Your task to perform on an android device: Search for "macbook pro 15 inch" on newegg.com, select the first entry, and add it to the cart. Image 0: 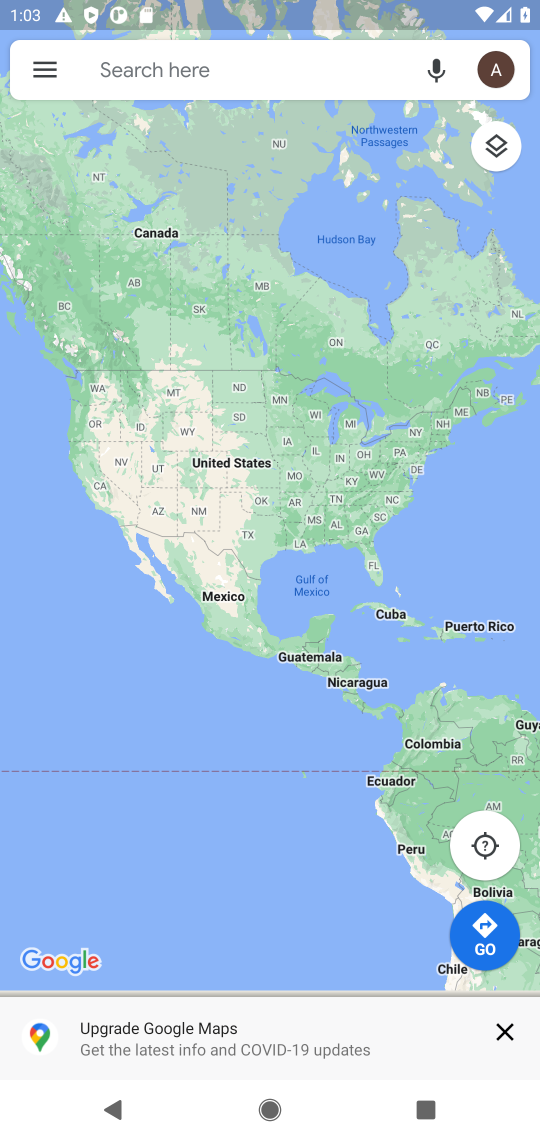
Step 0: press home button
Your task to perform on an android device: Search for "macbook pro 15 inch" on newegg.com, select the first entry, and add it to the cart. Image 1: 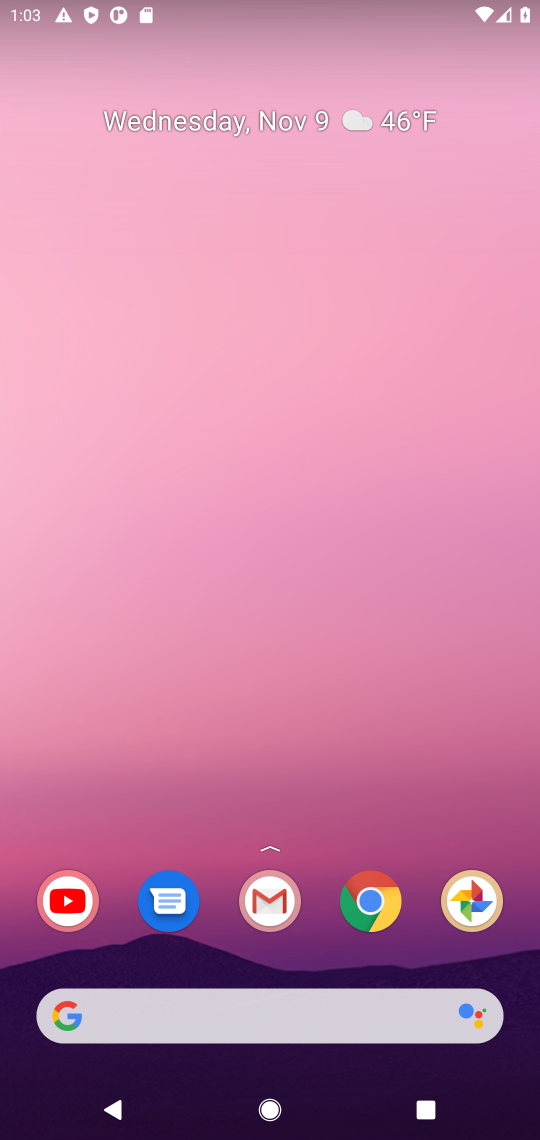
Step 1: click (376, 903)
Your task to perform on an android device: Search for "macbook pro 15 inch" on newegg.com, select the first entry, and add it to the cart. Image 2: 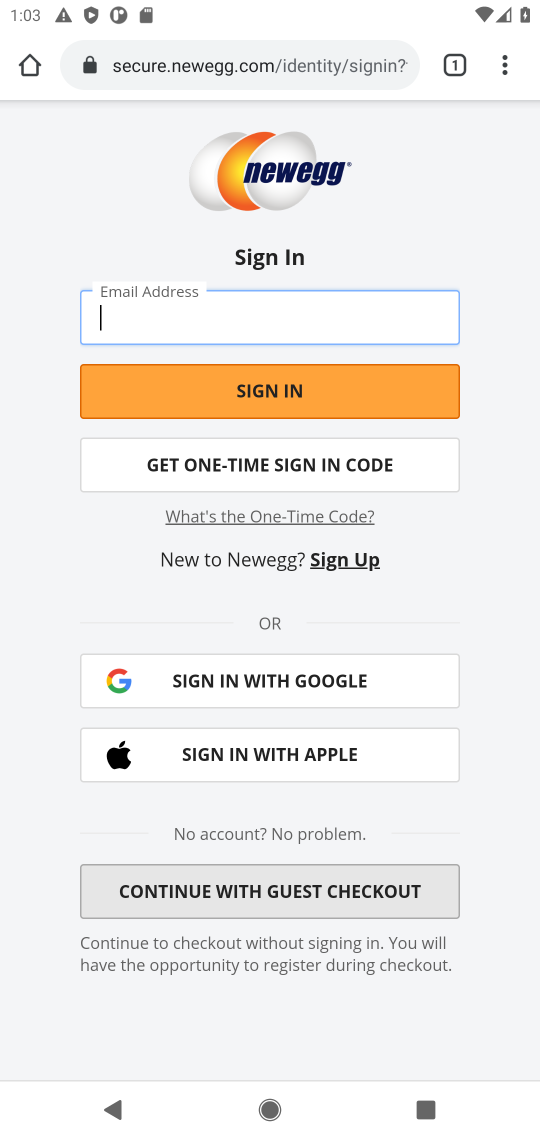
Step 2: press back button
Your task to perform on an android device: Search for "macbook pro 15 inch" on newegg.com, select the first entry, and add it to the cart. Image 3: 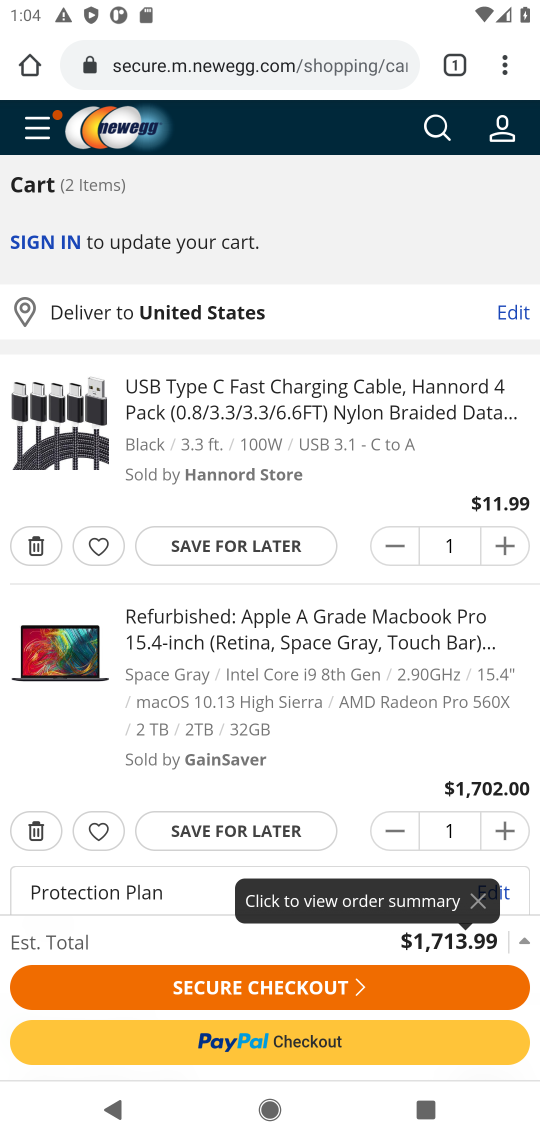
Step 3: click (435, 133)
Your task to perform on an android device: Search for "macbook pro 15 inch" on newegg.com, select the first entry, and add it to the cart. Image 4: 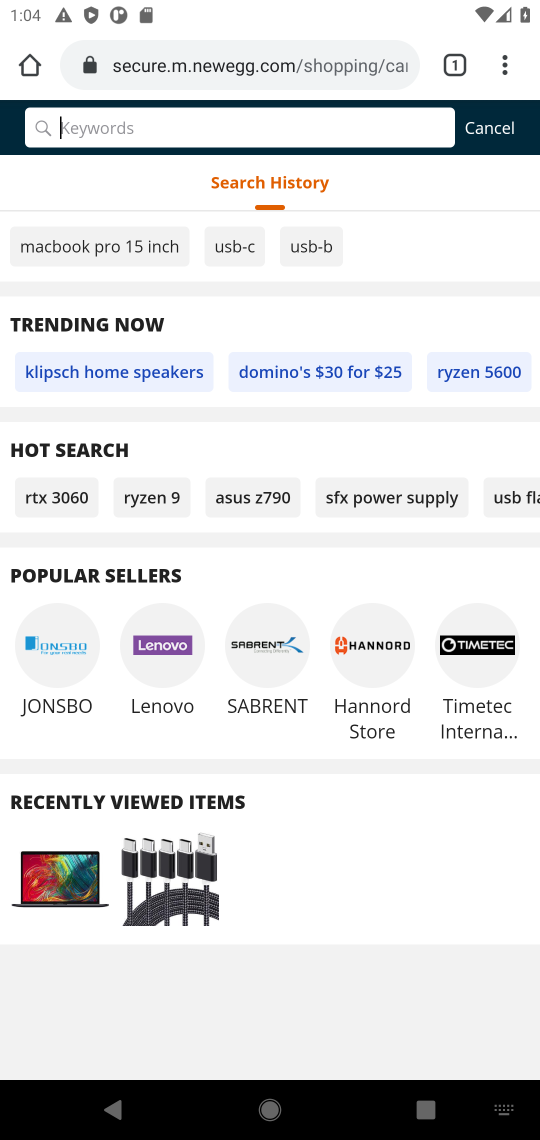
Step 4: type "macbook pro 15 inch"
Your task to perform on an android device: Search for "macbook pro 15 inch" on newegg.com, select the first entry, and add it to the cart. Image 5: 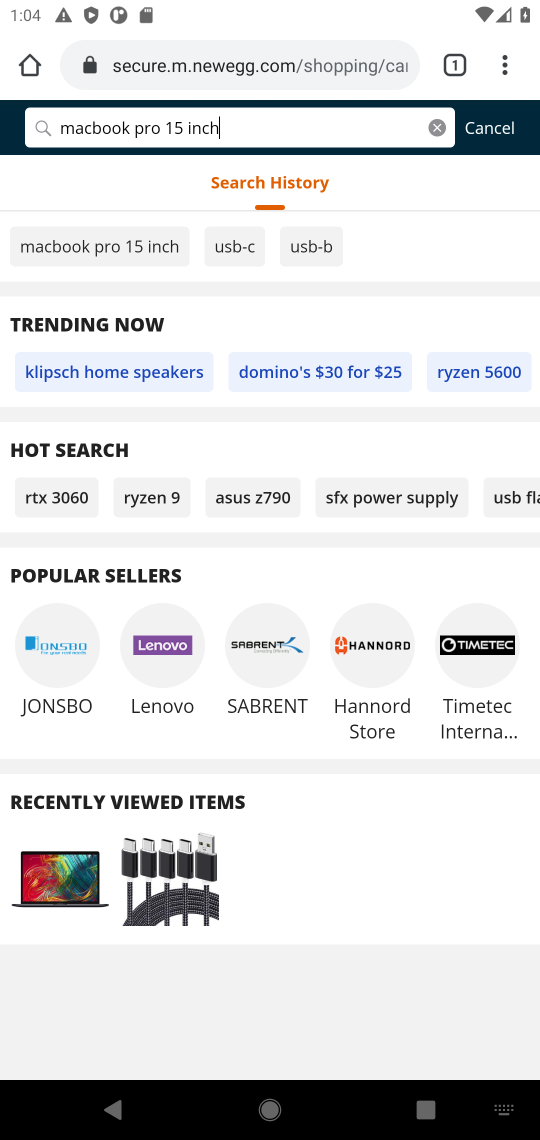
Step 5: press enter
Your task to perform on an android device: Search for "macbook pro 15 inch" on newegg.com, select the first entry, and add it to the cart. Image 6: 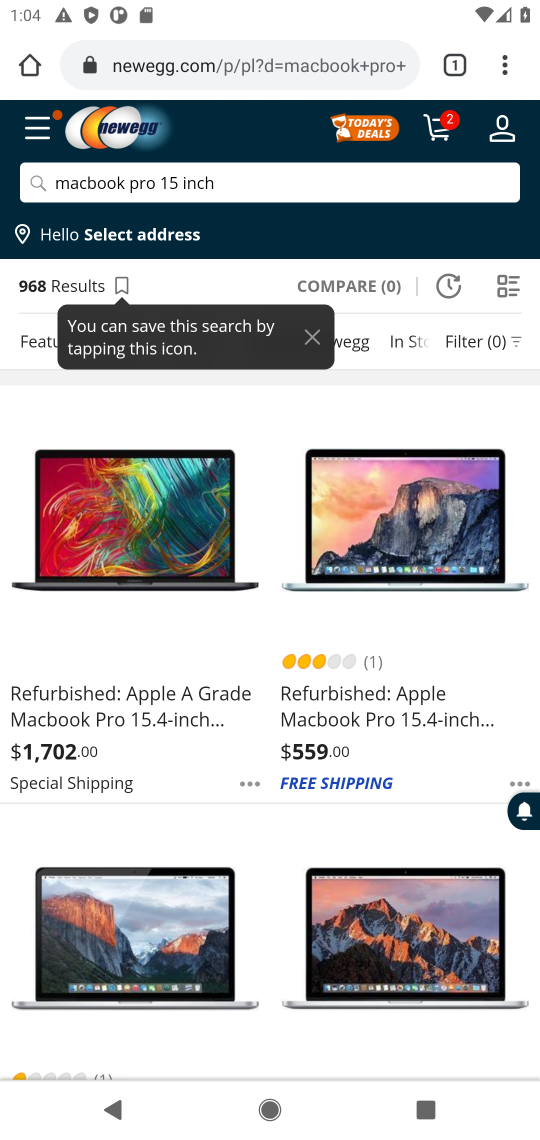
Step 6: drag from (252, 756) to (285, 428)
Your task to perform on an android device: Search for "macbook pro 15 inch" on newegg.com, select the first entry, and add it to the cart. Image 7: 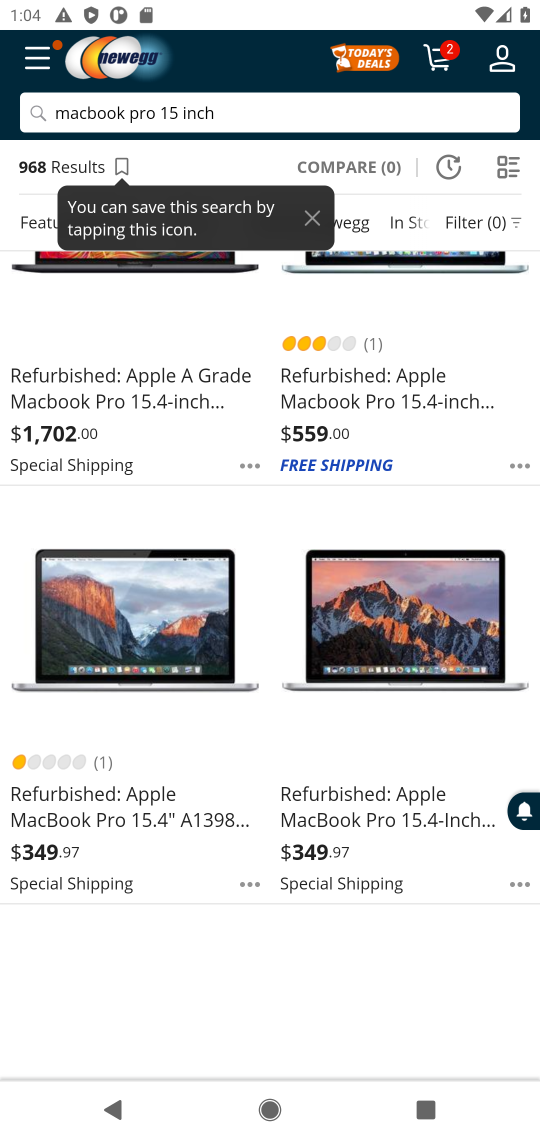
Step 7: drag from (434, 919) to (466, 490)
Your task to perform on an android device: Search for "macbook pro 15 inch" on newegg.com, select the first entry, and add it to the cart. Image 8: 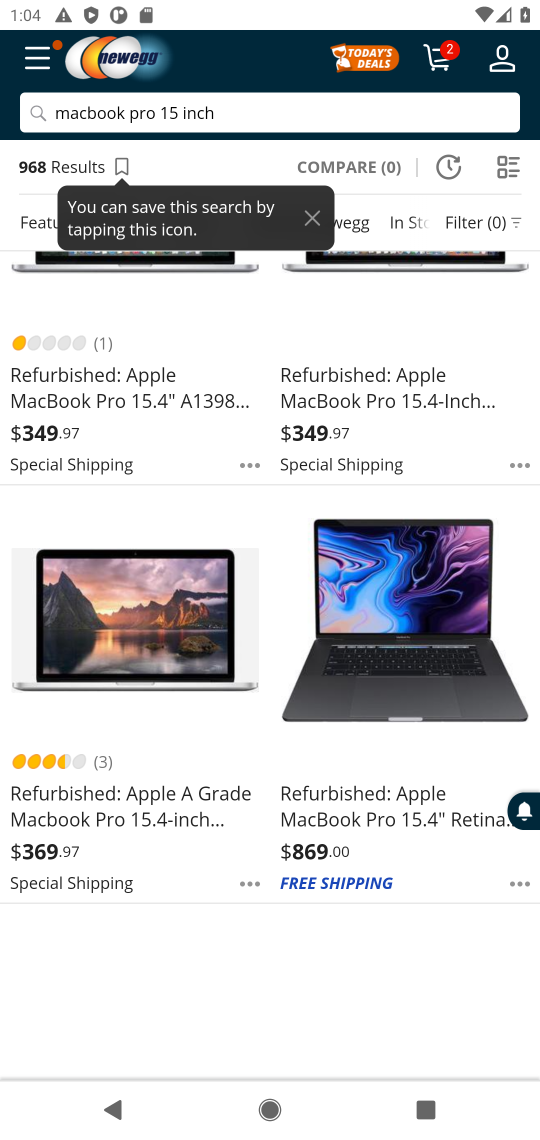
Step 8: drag from (242, 362) to (222, 879)
Your task to perform on an android device: Search for "macbook pro 15 inch" on newegg.com, select the first entry, and add it to the cart. Image 9: 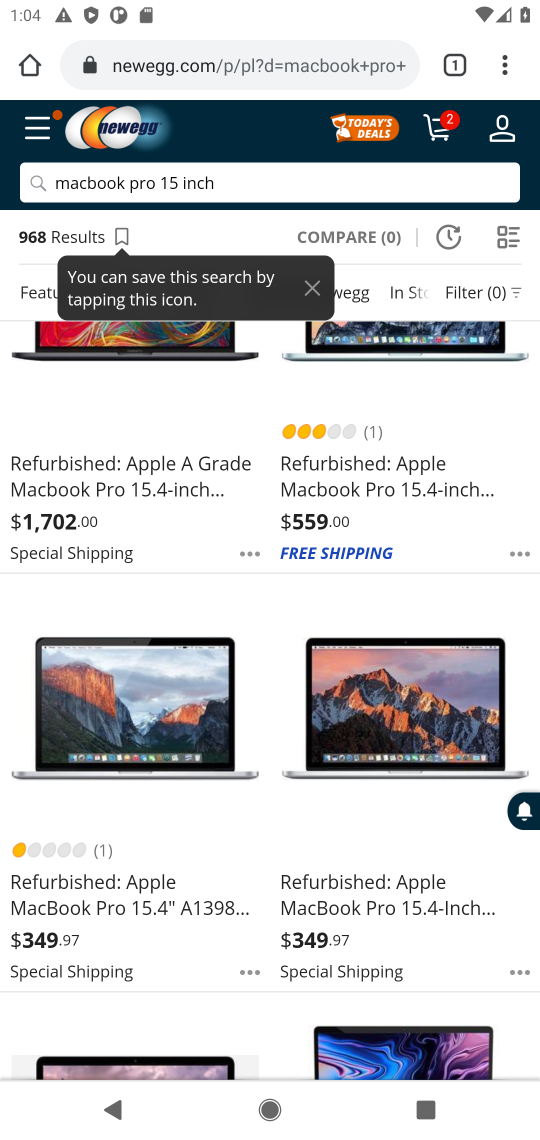
Step 9: drag from (358, 478) to (379, 795)
Your task to perform on an android device: Search for "macbook pro 15 inch" on newegg.com, select the first entry, and add it to the cart. Image 10: 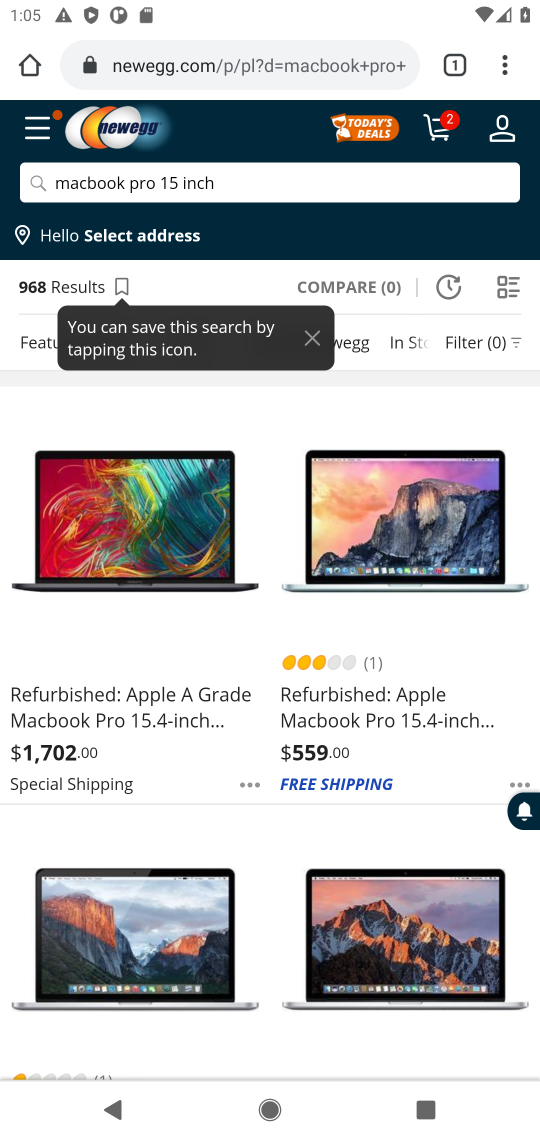
Step 10: click (196, 500)
Your task to perform on an android device: Search for "macbook pro 15 inch" on newegg.com, select the first entry, and add it to the cart. Image 11: 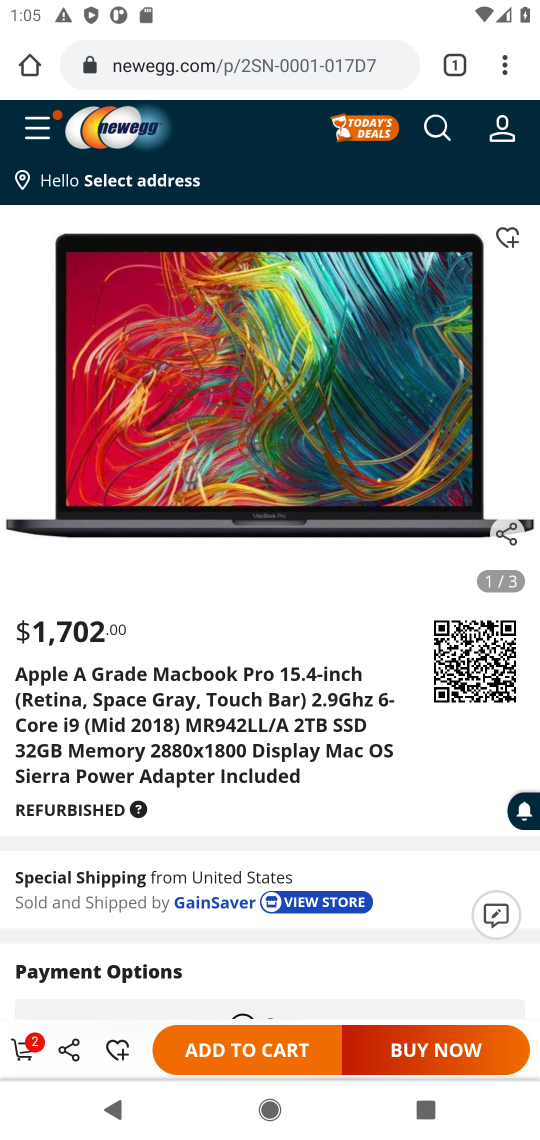
Step 11: click (250, 1045)
Your task to perform on an android device: Search for "macbook pro 15 inch" on newegg.com, select the first entry, and add it to the cart. Image 12: 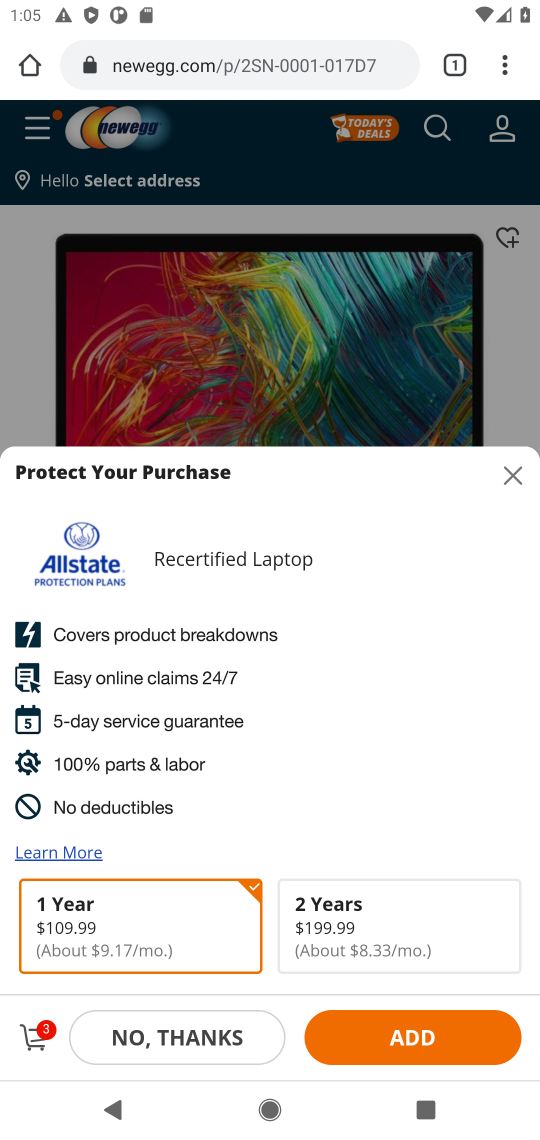
Step 12: task complete